Your task to perform on an android device: Open my contact list Image 0: 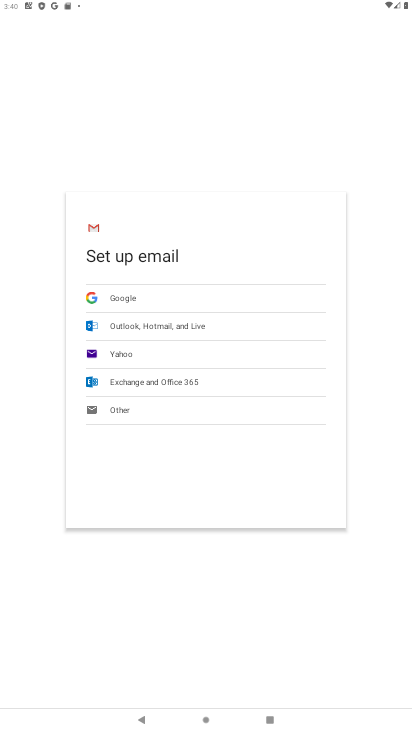
Step 0: press home button
Your task to perform on an android device: Open my contact list Image 1: 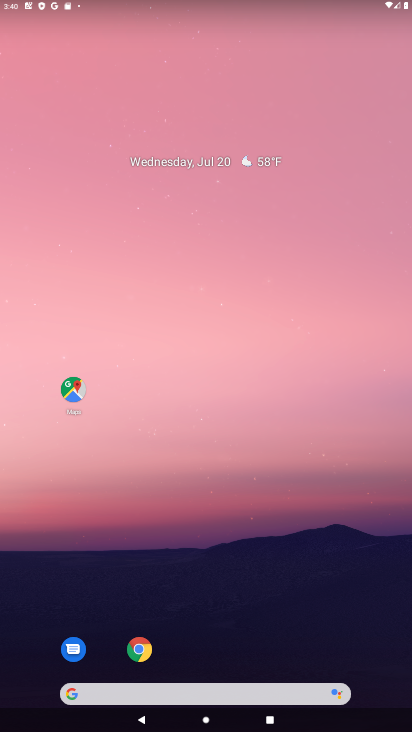
Step 1: drag from (224, 725) to (236, 363)
Your task to perform on an android device: Open my contact list Image 2: 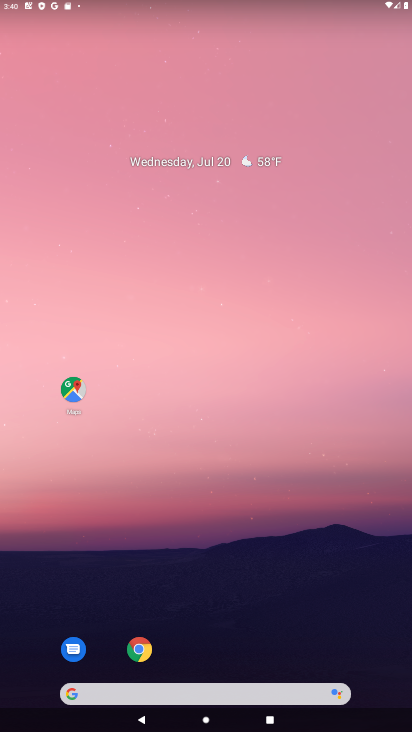
Step 2: drag from (223, 718) to (222, 137)
Your task to perform on an android device: Open my contact list Image 3: 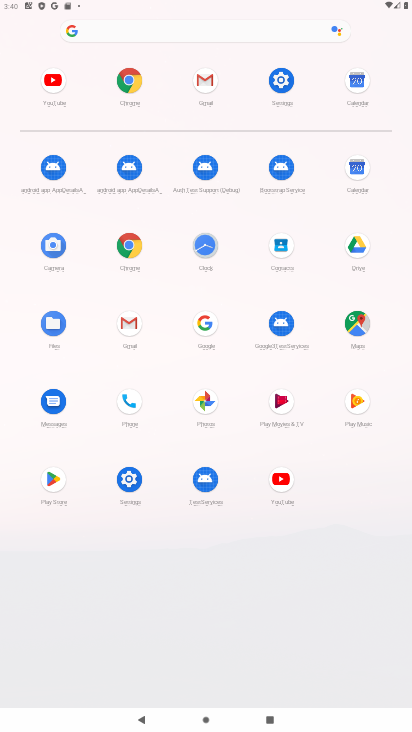
Step 3: click (284, 247)
Your task to perform on an android device: Open my contact list Image 4: 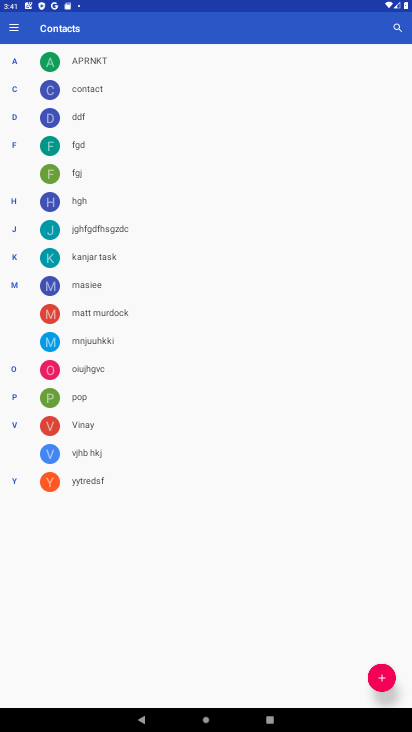
Step 4: task complete